Your task to perform on an android device: Go to display settings Image 0: 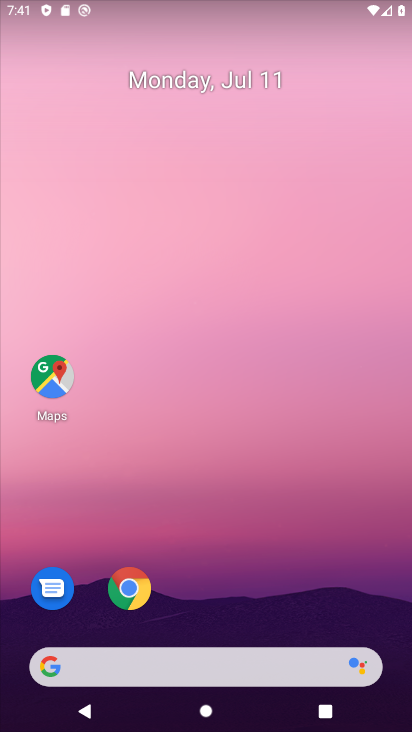
Step 0: drag from (214, 569) to (247, 88)
Your task to perform on an android device: Go to display settings Image 1: 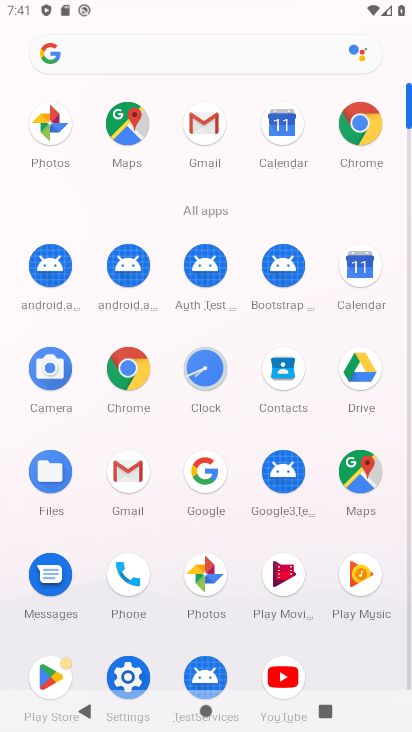
Step 1: click (133, 664)
Your task to perform on an android device: Go to display settings Image 2: 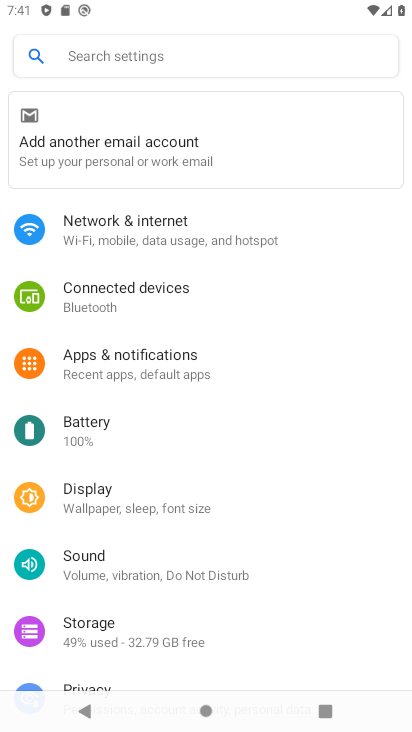
Step 2: click (151, 512)
Your task to perform on an android device: Go to display settings Image 3: 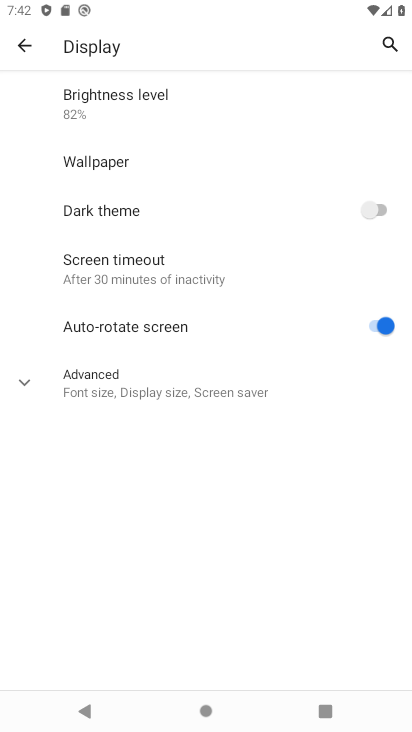
Step 3: task complete